Your task to perform on an android device: turn on notifications settings in the gmail app Image 0: 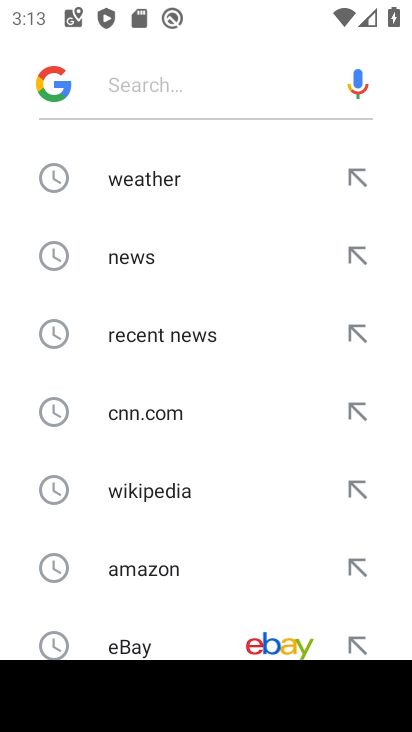
Step 0: press back button
Your task to perform on an android device: turn on notifications settings in the gmail app Image 1: 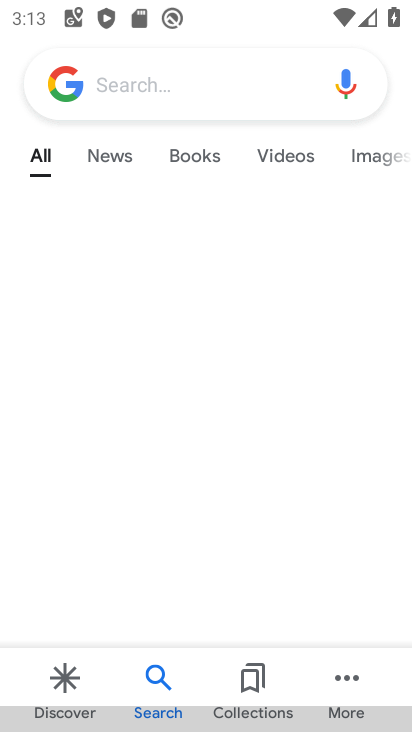
Step 1: press home button
Your task to perform on an android device: turn on notifications settings in the gmail app Image 2: 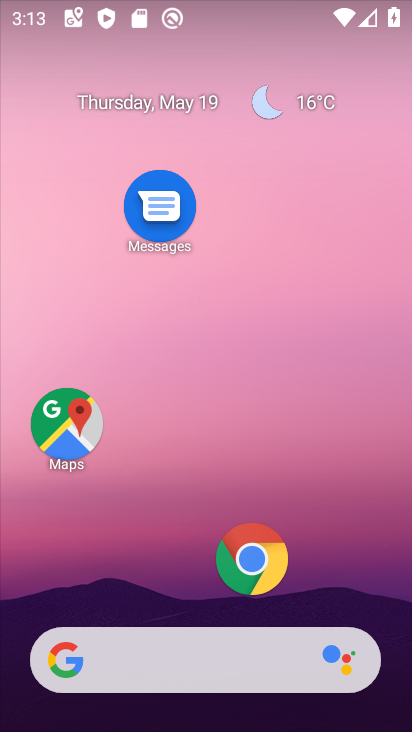
Step 2: drag from (179, 607) to (222, 202)
Your task to perform on an android device: turn on notifications settings in the gmail app Image 3: 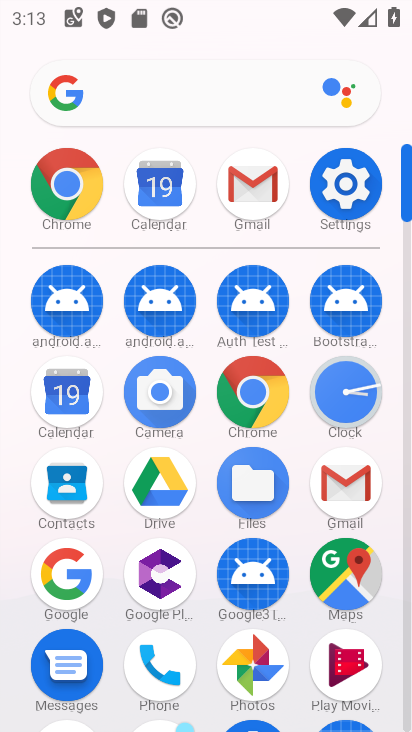
Step 3: click (248, 199)
Your task to perform on an android device: turn on notifications settings in the gmail app Image 4: 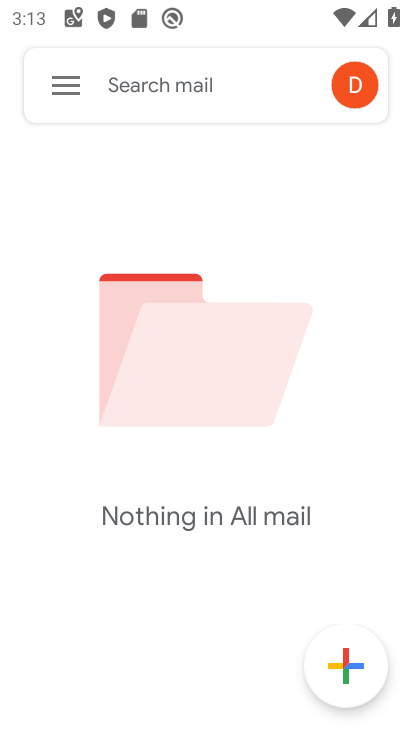
Step 4: click (56, 91)
Your task to perform on an android device: turn on notifications settings in the gmail app Image 5: 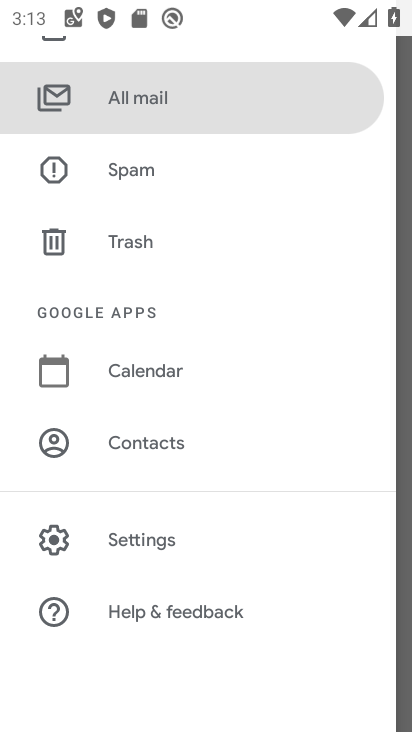
Step 5: click (148, 552)
Your task to perform on an android device: turn on notifications settings in the gmail app Image 6: 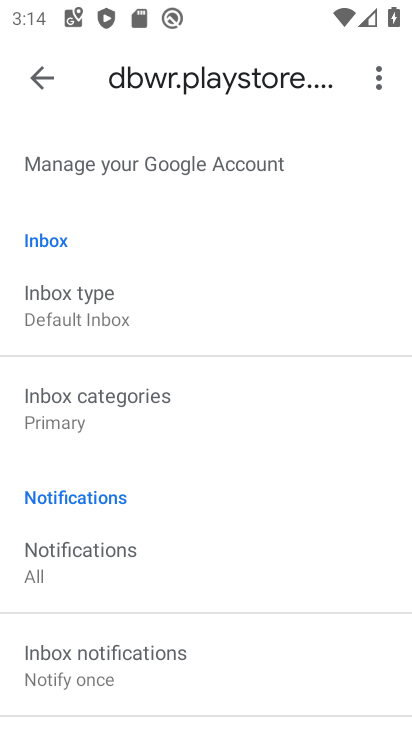
Step 6: drag from (183, 649) to (194, 448)
Your task to perform on an android device: turn on notifications settings in the gmail app Image 7: 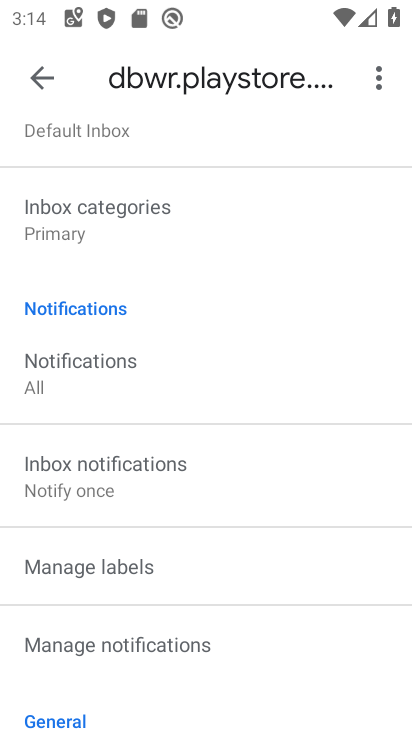
Step 7: click (167, 648)
Your task to perform on an android device: turn on notifications settings in the gmail app Image 8: 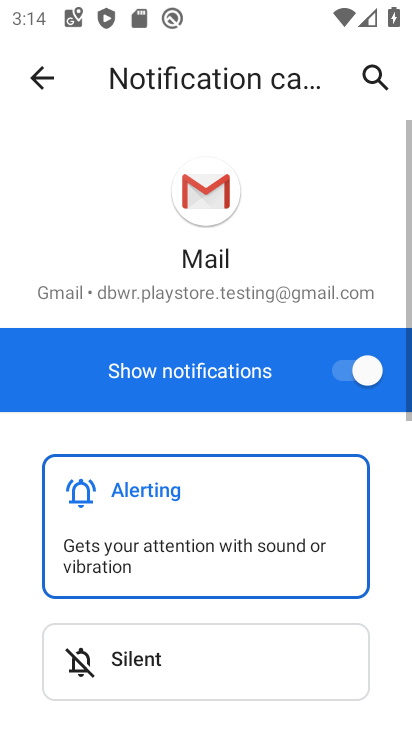
Step 8: task complete